Your task to perform on an android device: toggle airplane mode Image 0: 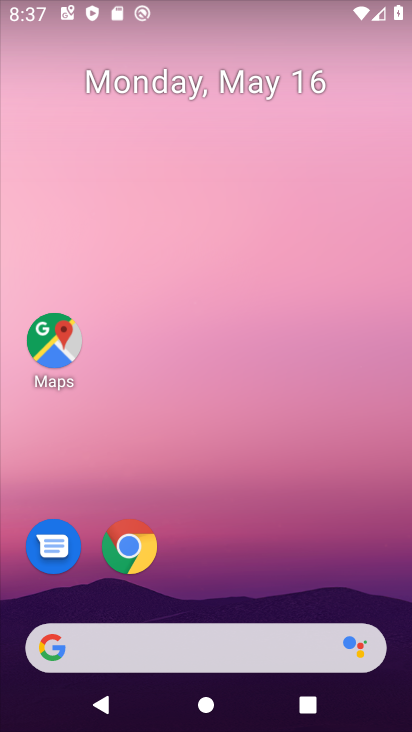
Step 0: drag from (248, 677) to (265, 94)
Your task to perform on an android device: toggle airplane mode Image 1: 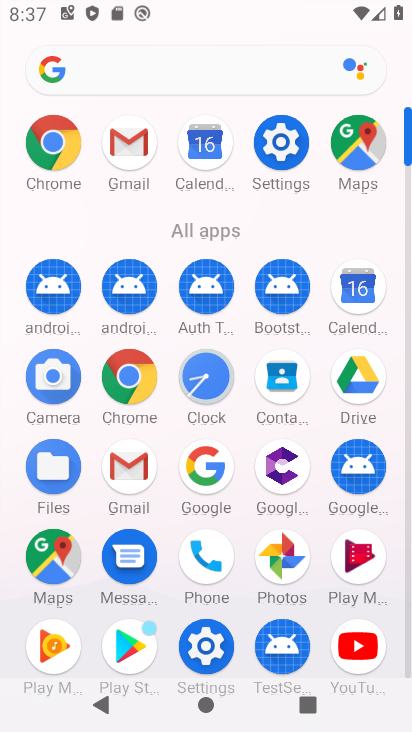
Step 1: click (282, 159)
Your task to perform on an android device: toggle airplane mode Image 2: 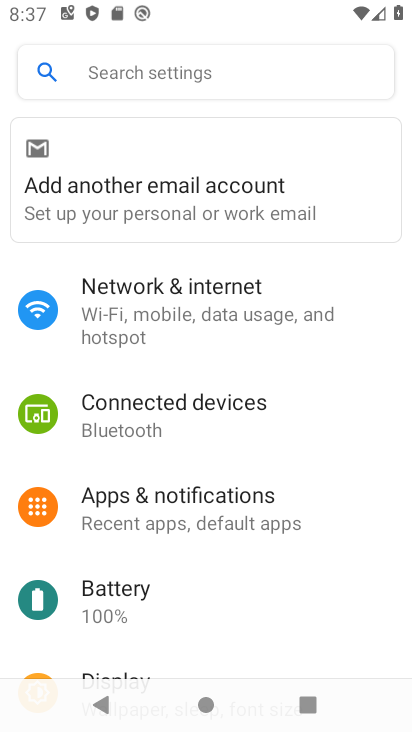
Step 2: click (155, 335)
Your task to perform on an android device: toggle airplane mode Image 3: 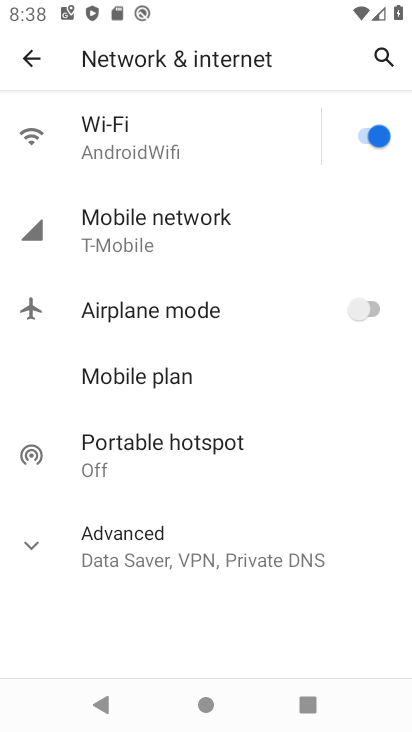
Step 3: click (161, 300)
Your task to perform on an android device: toggle airplane mode Image 4: 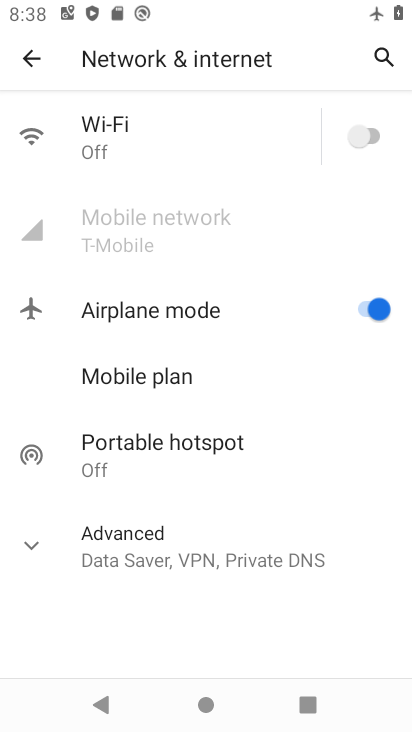
Step 4: task complete